Your task to perform on an android device: find which apps use the phone's location Image 0: 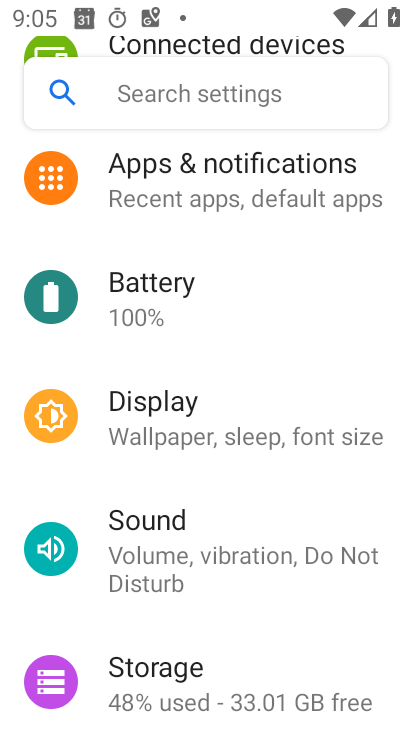
Step 0: drag from (208, 600) to (356, 228)
Your task to perform on an android device: find which apps use the phone's location Image 1: 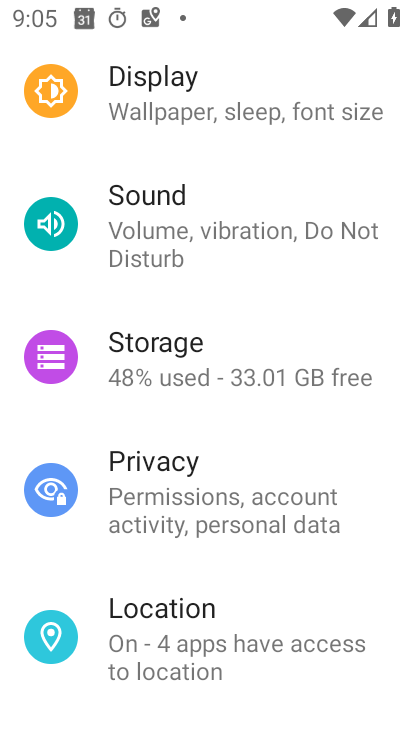
Step 1: click (220, 630)
Your task to perform on an android device: find which apps use the phone's location Image 2: 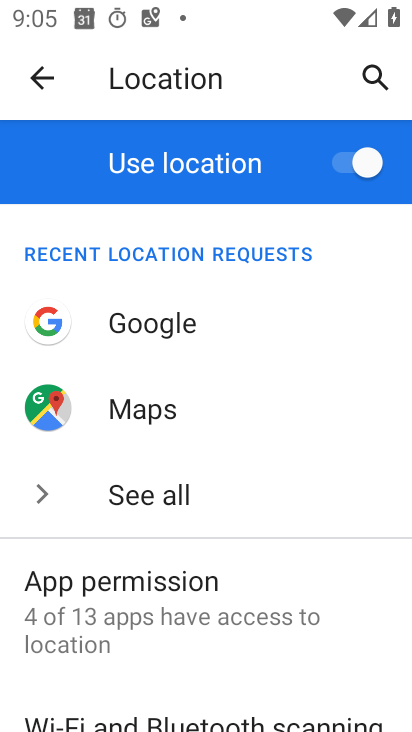
Step 2: drag from (210, 674) to (308, 308)
Your task to perform on an android device: find which apps use the phone's location Image 3: 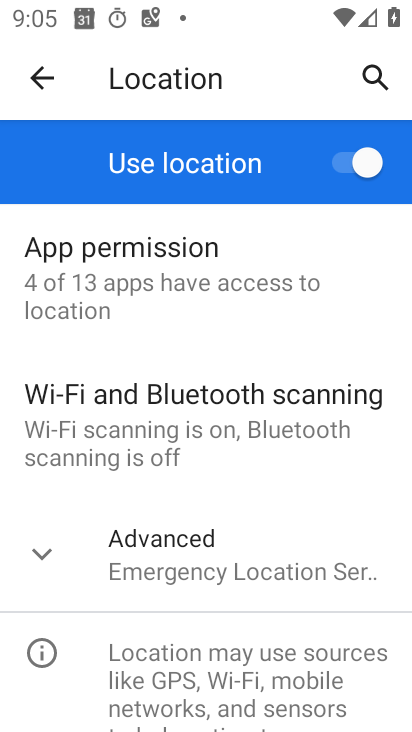
Step 3: drag from (235, 256) to (209, 515)
Your task to perform on an android device: find which apps use the phone's location Image 4: 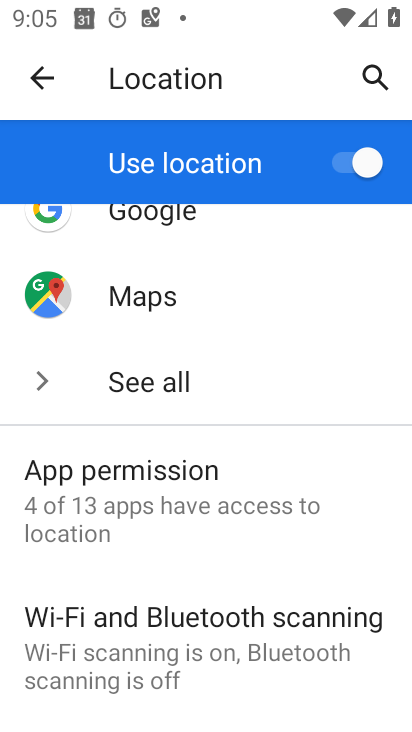
Step 4: click (206, 503)
Your task to perform on an android device: find which apps use the phone's location Image 5: 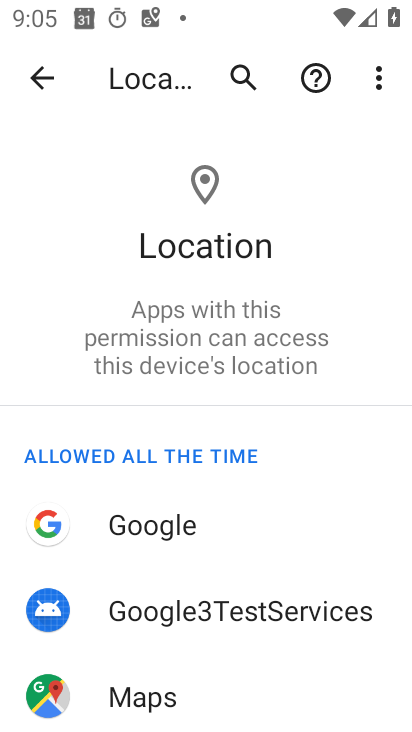
Step 5: task complete